Your task to perform on an android device: What's the weather going to be tomorrow? Image 0: 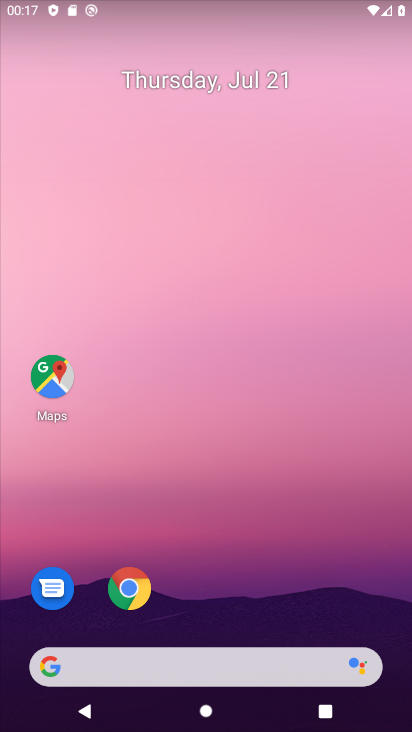
Step 0: drag from (2, 244) to (349, 277)
Your task to perform on an android device: What's the weather going to be tomorrow? Image 1: 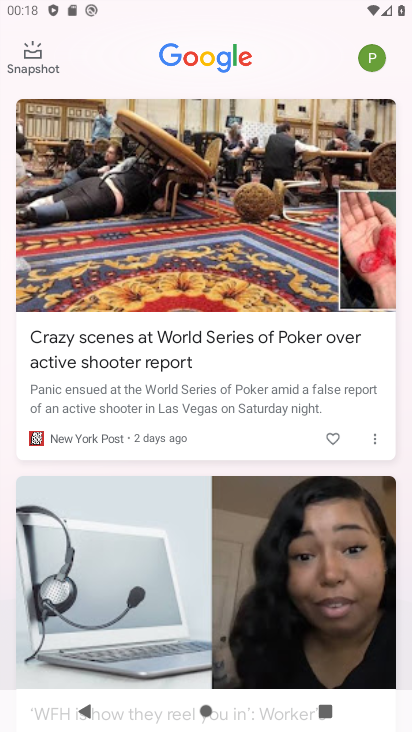
Step 1: press home button
Your task to perform on an android device: What's the weather going to be tomorrow? Image 2: 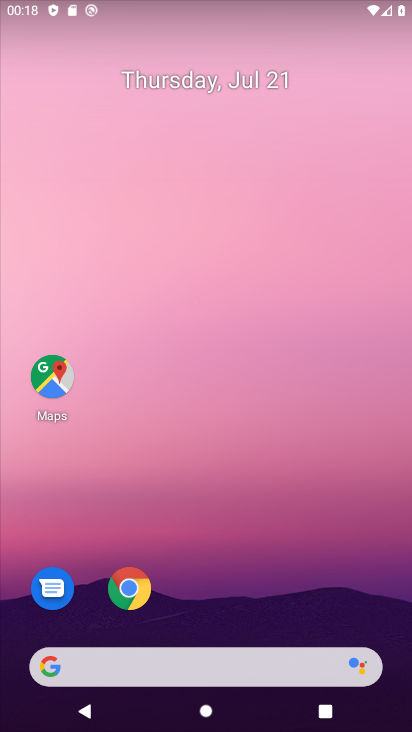
Step 2: click (143, 588)
Your task to perform on an android device: What's the weather going to be tomorrow? Image 3: 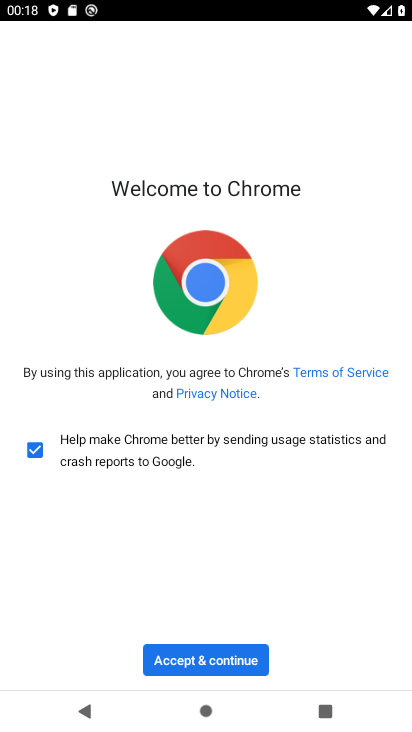
Step 3: click (236, 650)
Your task to perform on an android device: What's the weather going to be tomorrow? Image 4: 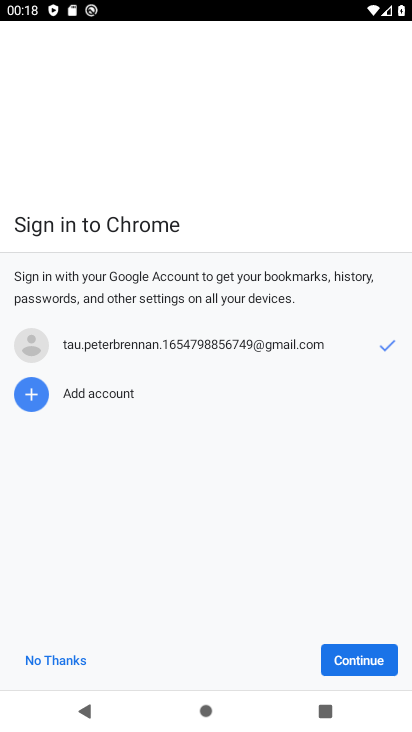
Step 4: click (72, 663)
Your task to perform on an android device: What's the weather going to be tomorrow? Image 5: 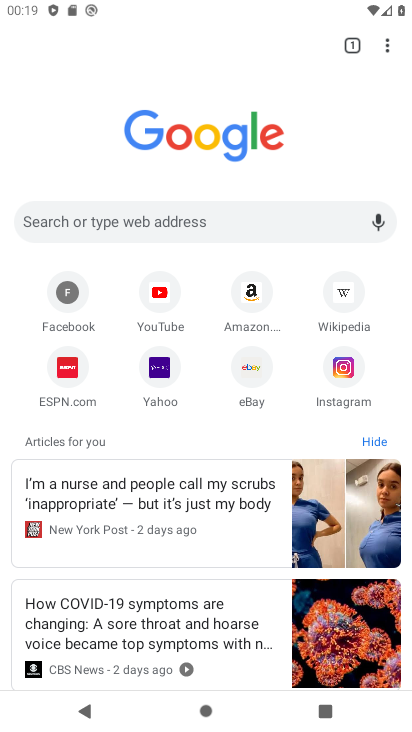
Step 5: click (167, 220)
Your task to perform on an android device: What's the weather going to be tomorrow? Image 6: 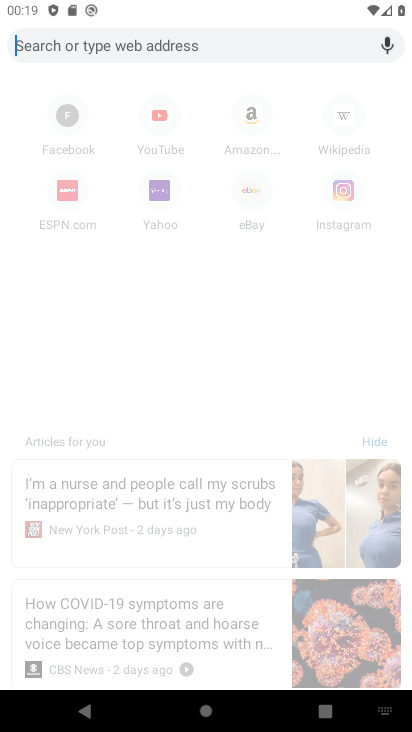
Step 6: type "weather tomorrow"
Your task to perform on an android device: What's the weather going to be tomorrow? Image 7: 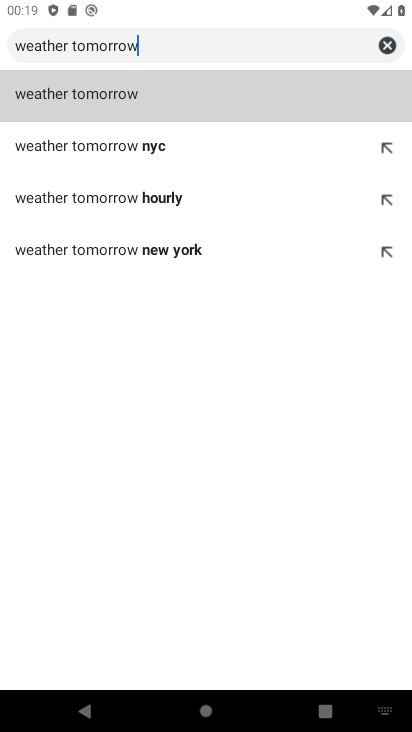
Step 7: click (172, 101)
Your task to perform on an android device: What's the weather going to be tomorrow? Image 8: 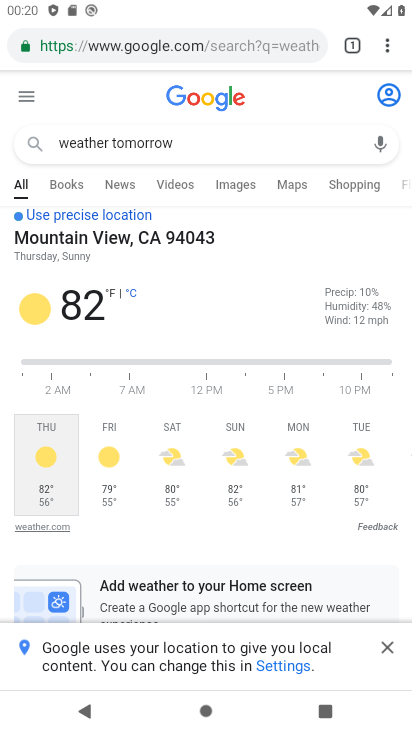
Step 8: task complete